Your task to perform on an android device: Open CNN.com Image 0: 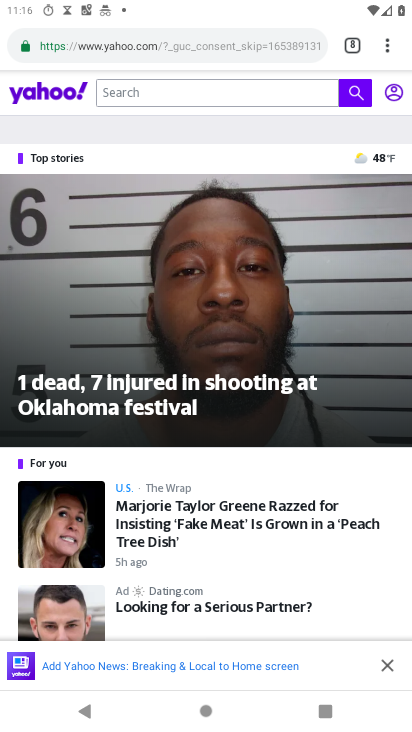
Step 0: press back button
Your task to perform on an android device: Open CNN.com Image 1: 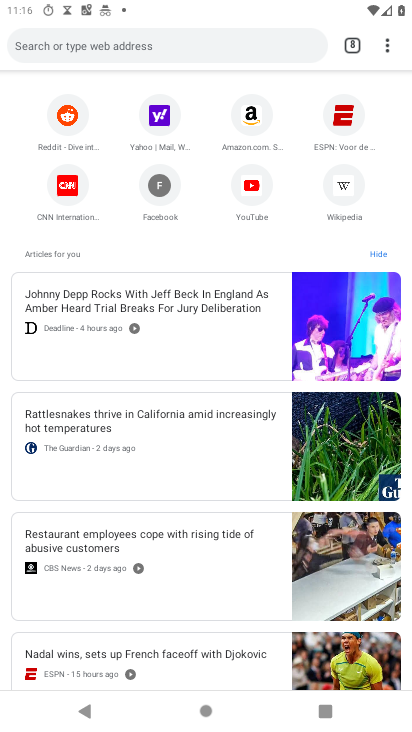
Step 1: click (75, 190)
Your task to perform on an android device: Open CNN.com Image 2: 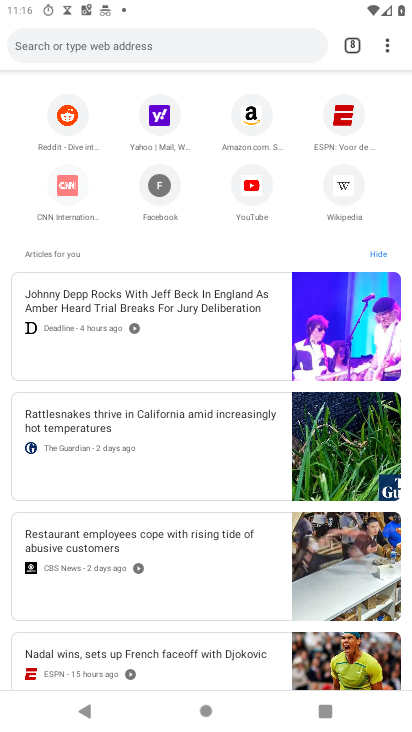
Step 2: click (72, 192)
Your task to perform on an android device: Open CNN.com Image 3: 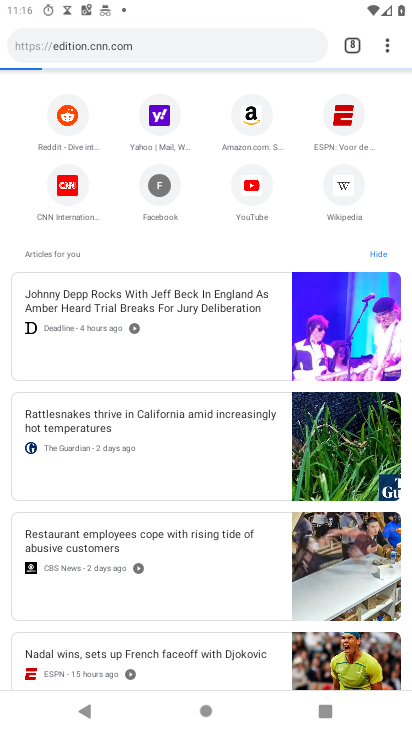
Step 3: click (72, 192)
Your task to perform on an android device: Open CNN.com Image 4: 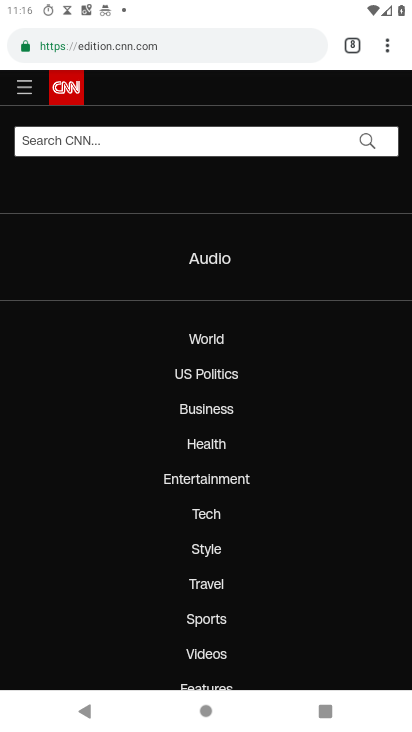
Step 4: task complete